Your task to perform on an android device: turn on location history Image 0: 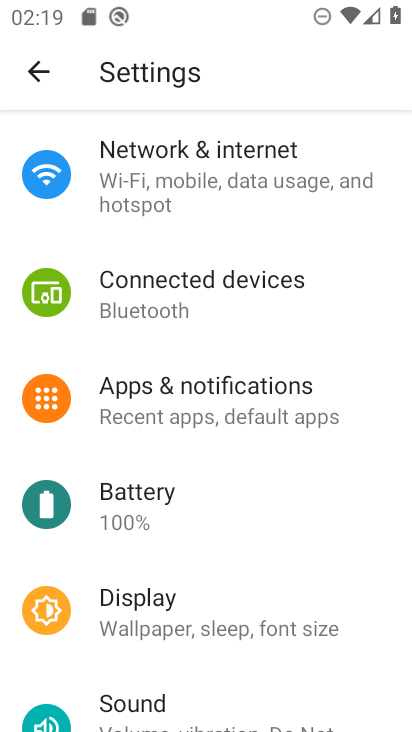
Step 0: drag from (238, 656) to (301, 317)
Your task to perform on an android device: turn on location history Image 1: 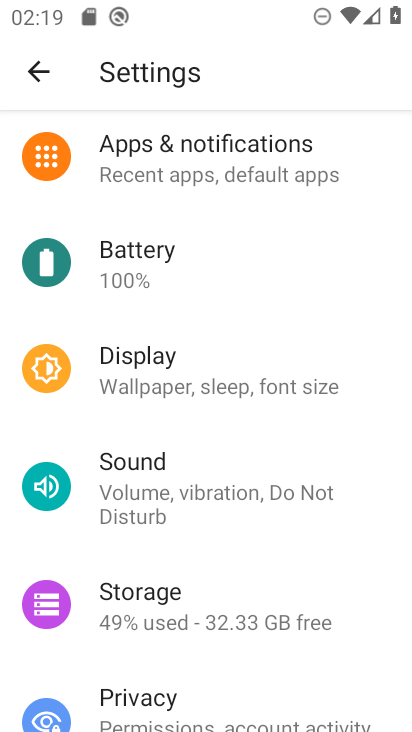
Step 1: drag from (228, 656) to (287, 379)
Your task to perform on an android device: turn on location history Image 2: 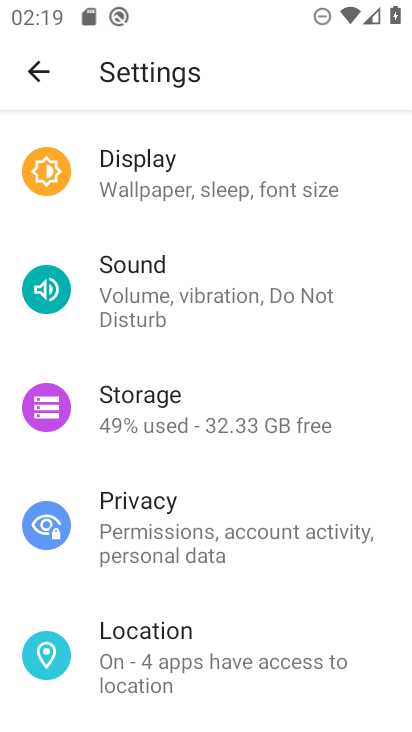
Step 2: click (206, 644)
Your task to perform on an android device: turn on location history Image 3: 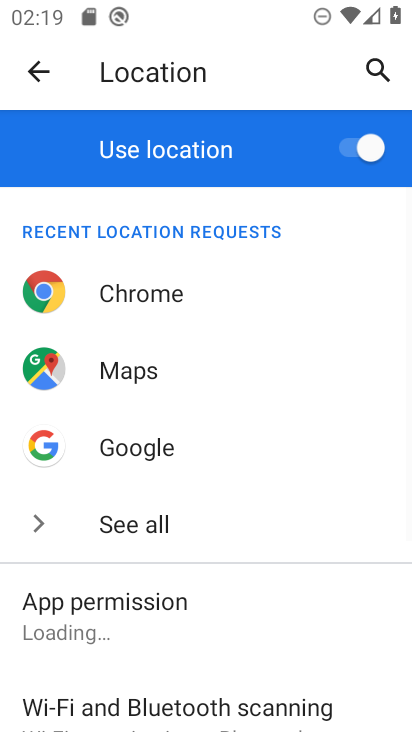
Step 3: drag from (195, 637) to (301, 258)
Your task to perform on an android device: turn on location history Image 4: 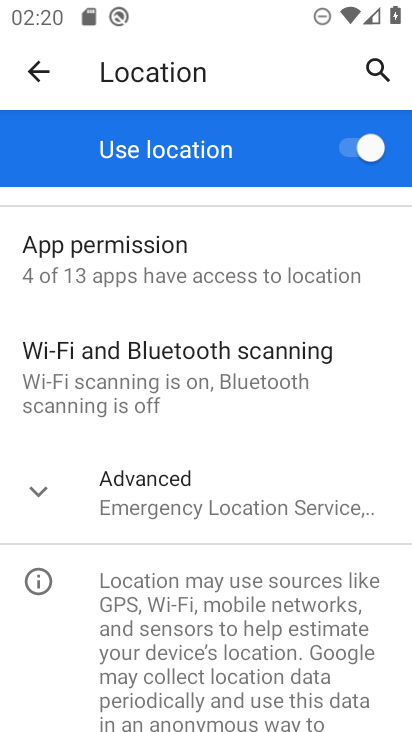
Step 4: click (211, 505)
Your task to perform on an android device: turn on location history Image 5: 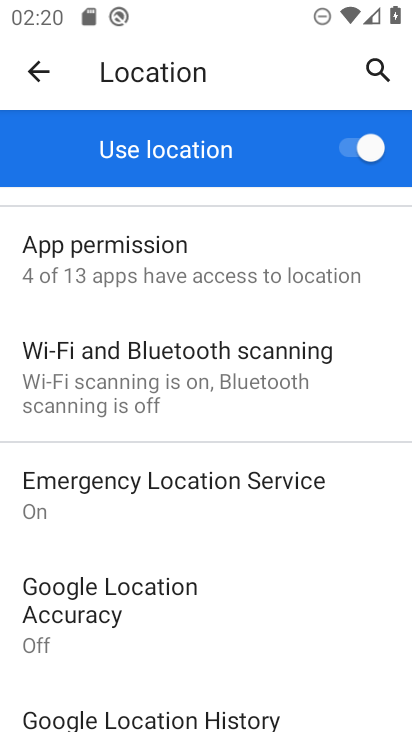
Step 5: drag from (254, 598) to (298, 342)
Your task to perform on an android device: turn on location history Image 6: 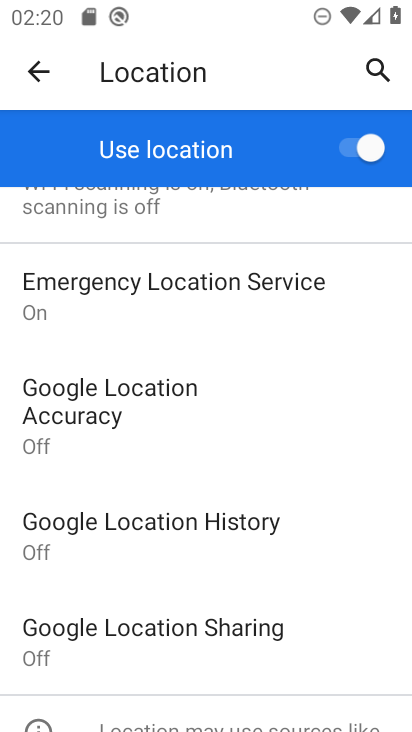
Step 6: click (179, 540)
Your task to perform on an android device: turn on location history Image 7: 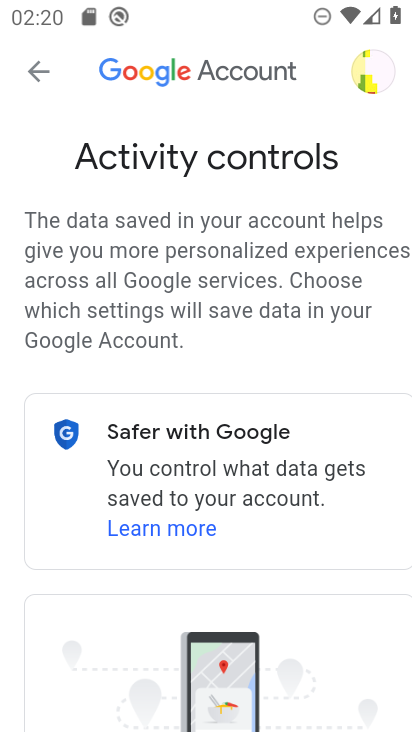
Step 7: task complete